Your task to perform on an android device: Open the calendar and show me this week's events? Image 0: 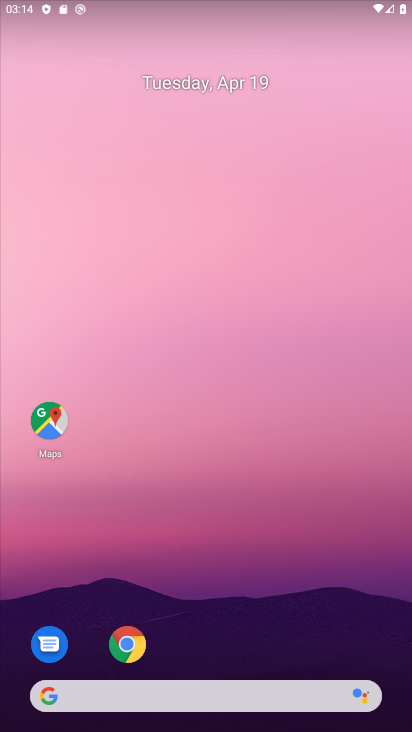
Step 0: drag from (361, 622) to (259, 246)
Your task to perform on an android device: Open the calendar and show me this week's events? Image 1: 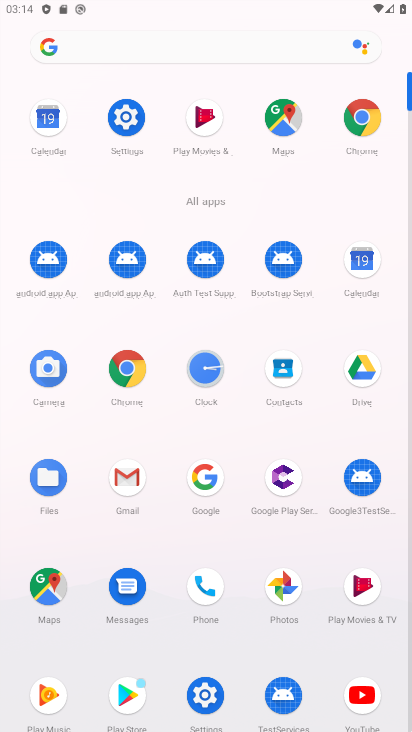
Step 1: click (356, 265)
Your task to perform on an android device: Open the calendar and show me this week's events? Image 2: 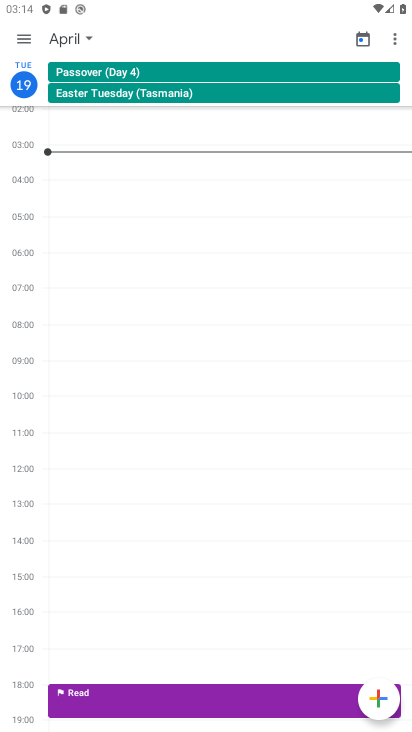
Step 2: click (23, 38)
Your task to perform on an android device: Open the calendar and show me this week's events? Image 3: 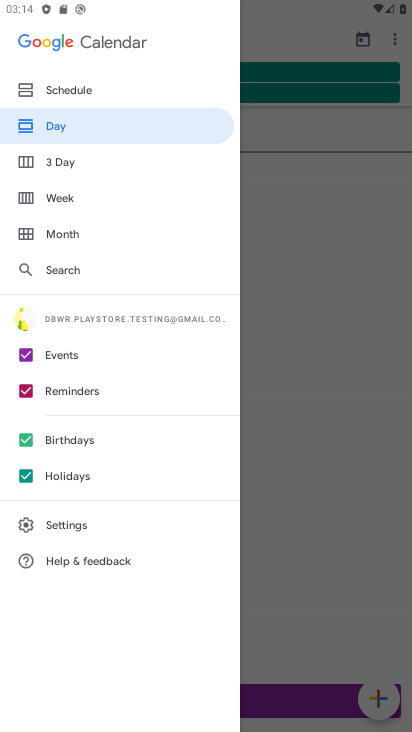
Step 3: click (65, 191)
Your task to perform on an android device: Open the calendar and show me this week's events? Image 4: 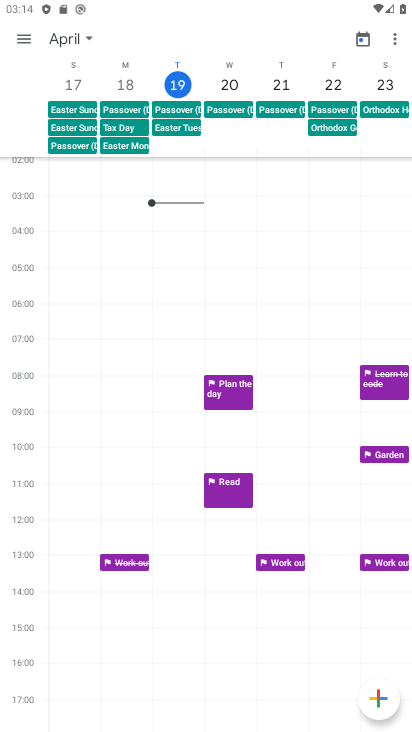
Step 4: task complete